Your task to perform on an android device: Search for Mexican restaurants on Maps Image 0: 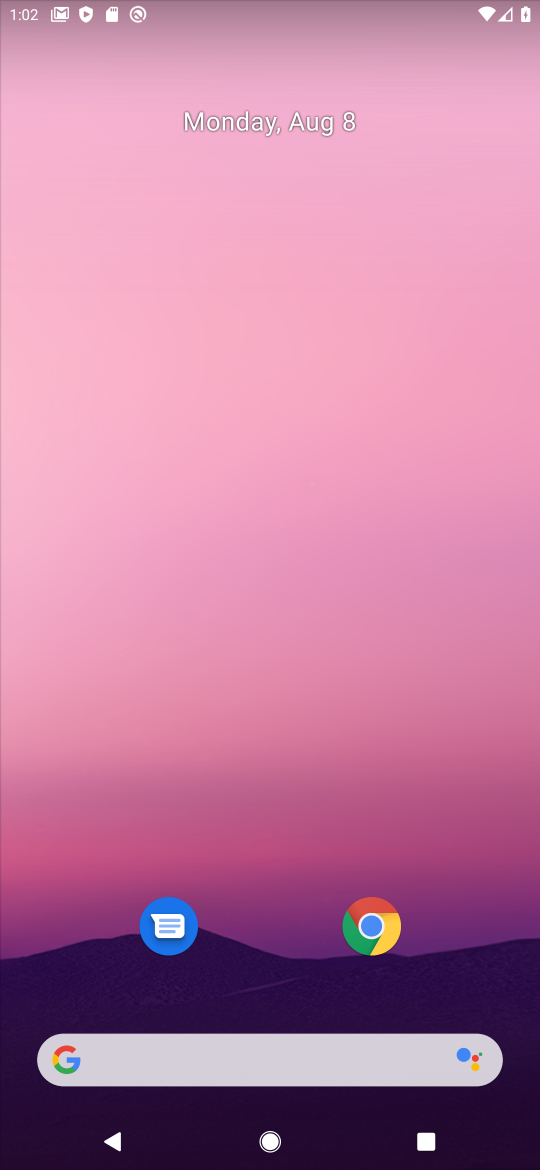
Step 0: drag from (286, 596) to (247, 278)
Your task to perform on an android device: Search for Mexican restaurants on Maps Image 1: 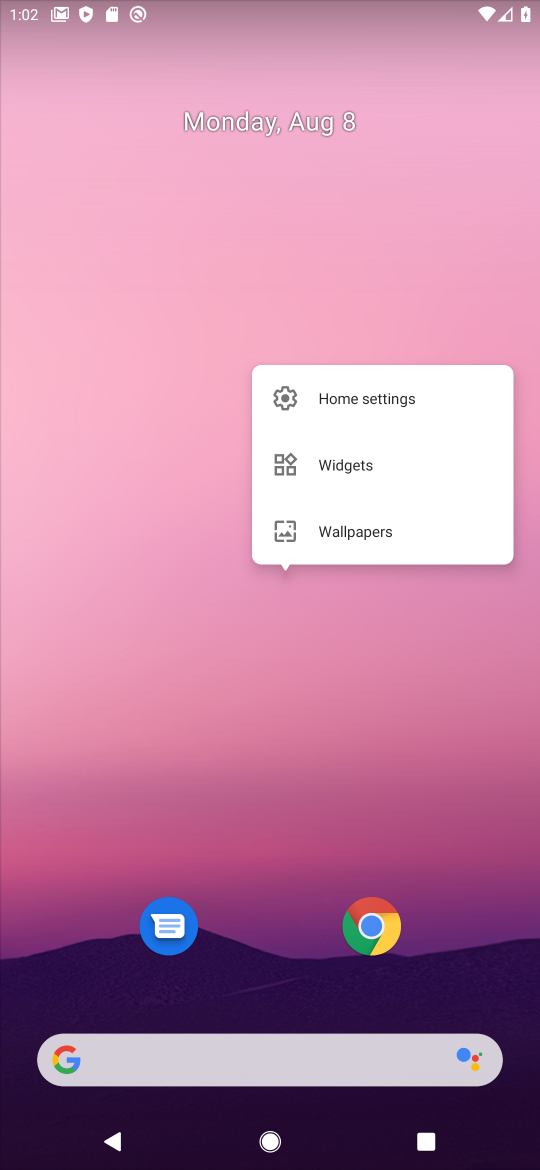
Step 1: click (229, 929)
Your task to perform on an android device: Search for Mexican restaurants on Maps Image 2: 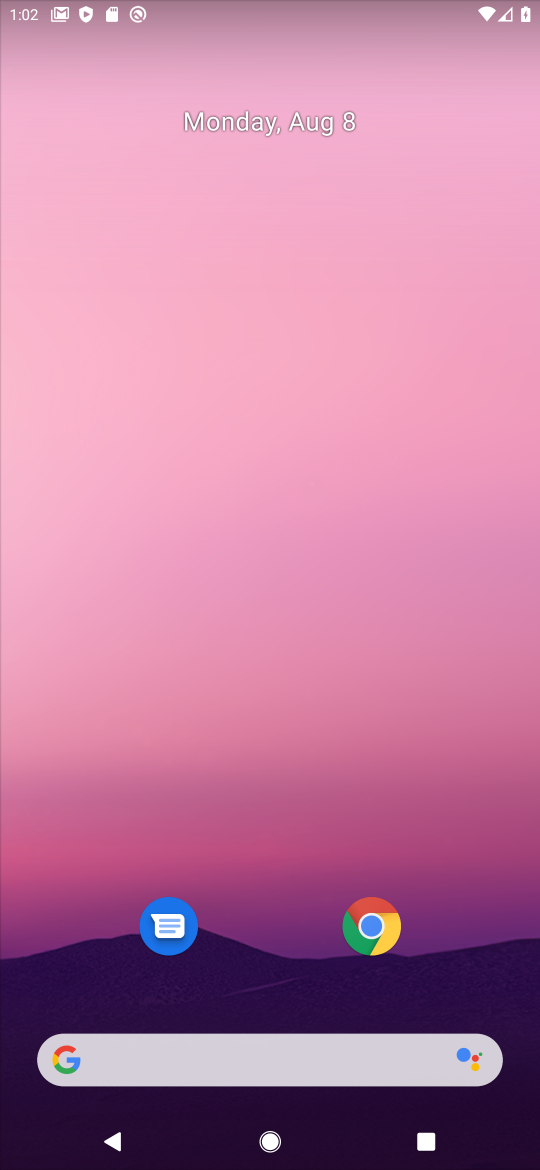
Step 2: drag from (305, 873) to (340, 44)
Your task to perform on an android device: Search for Mexican restaurants on Maps Image 3: 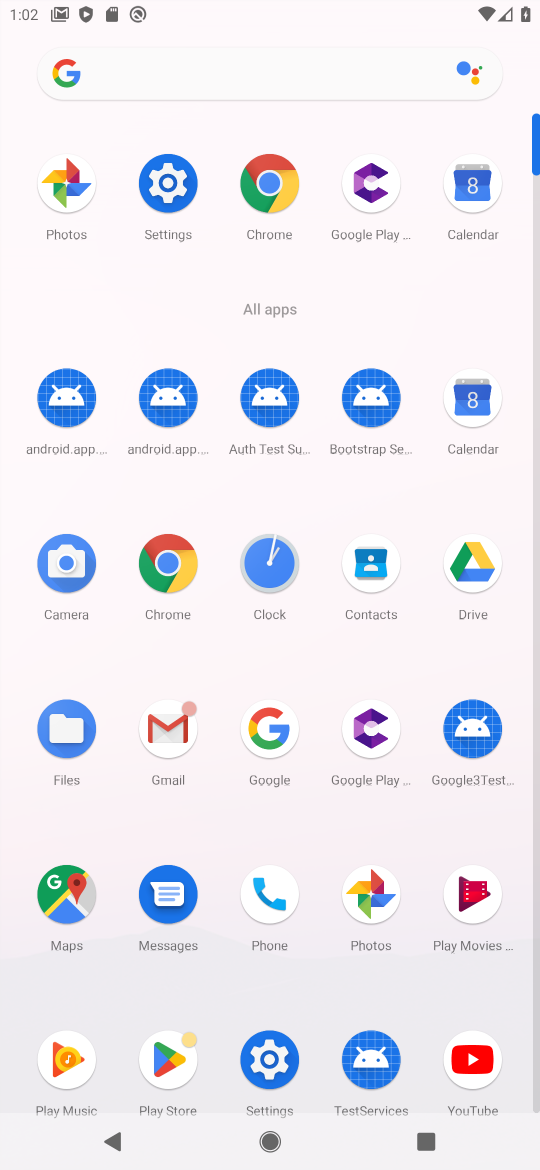
Step 3: click (55, 884)
Your task to perform on an android device: Search for Mexican restaurants on Maps Image 4: 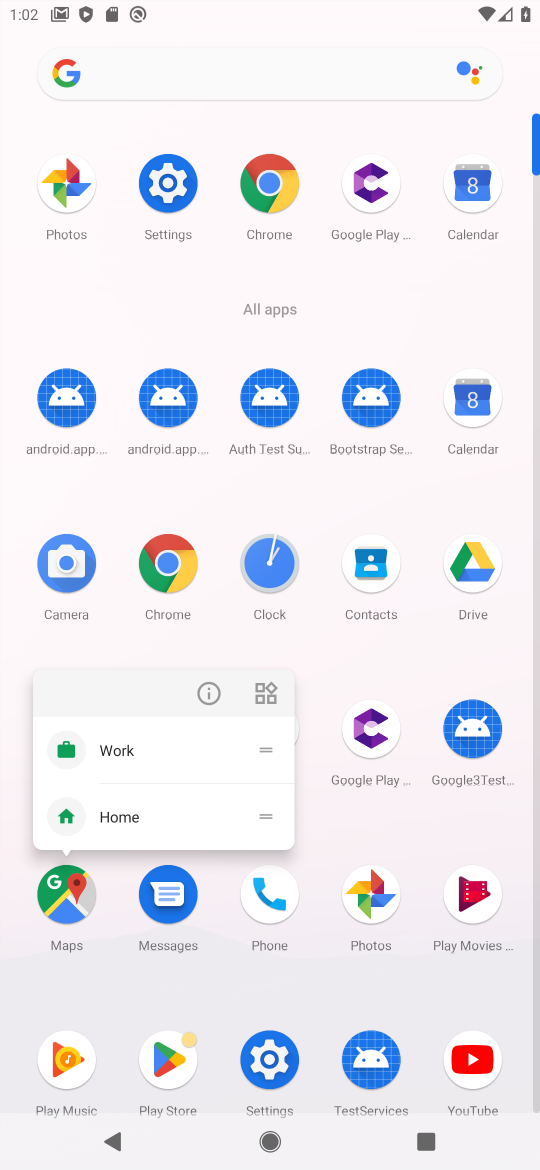
Step 4: click (64, 886)
Your task to perform on an android device: Search for Mexican restaurants on Maps Image 5: 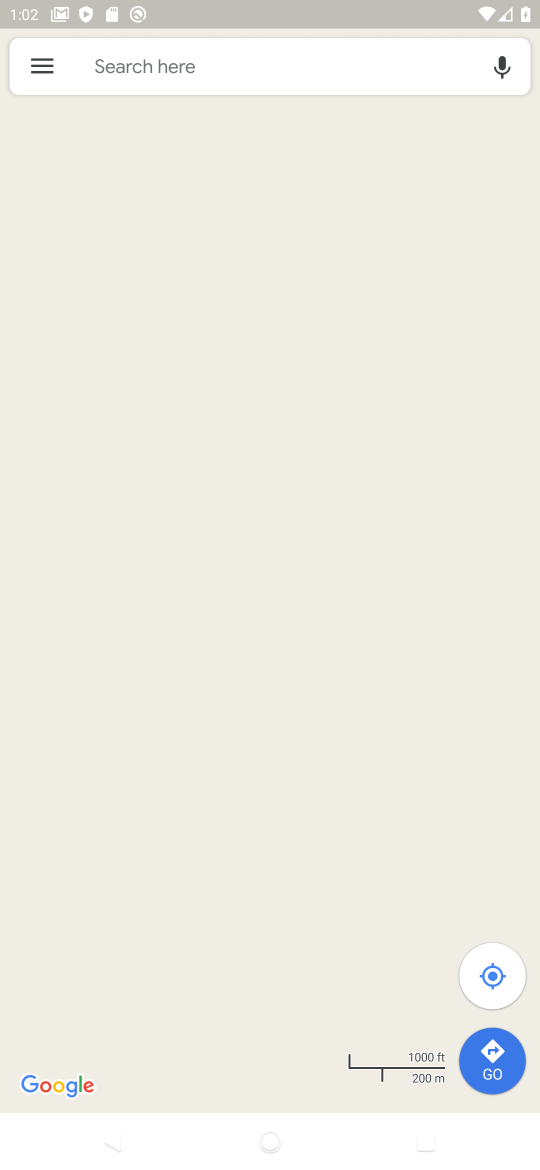
Step 5: click (261, 60)
Your task to perform on an android device: Search for Mexican restaurants on Maps Image 6: 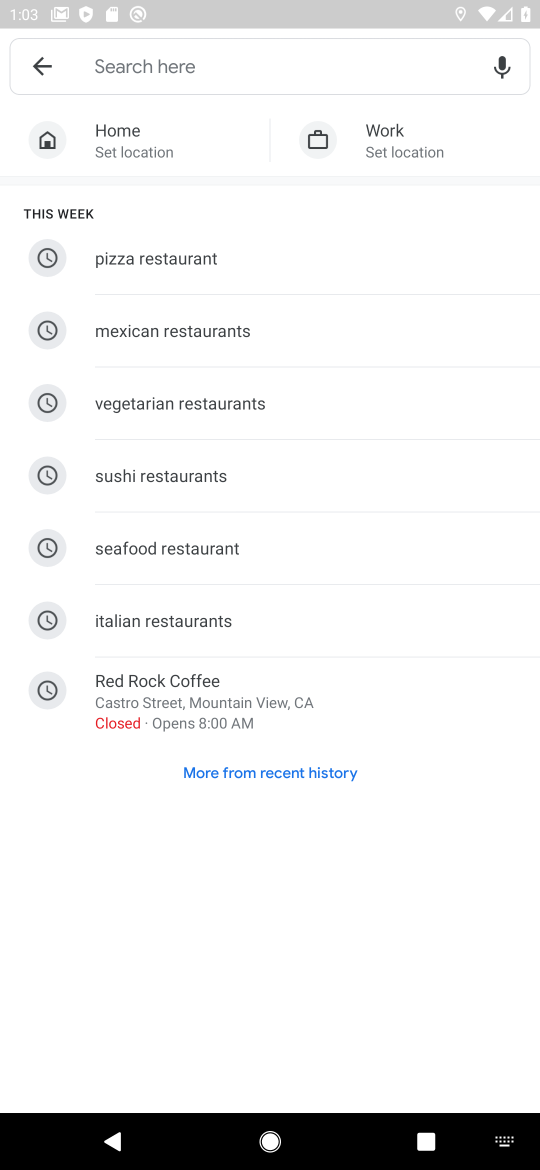
Step 6: click (218, 335)
Your task to perform on an android device: Search for Mexican restaurants on Maps Image 7: 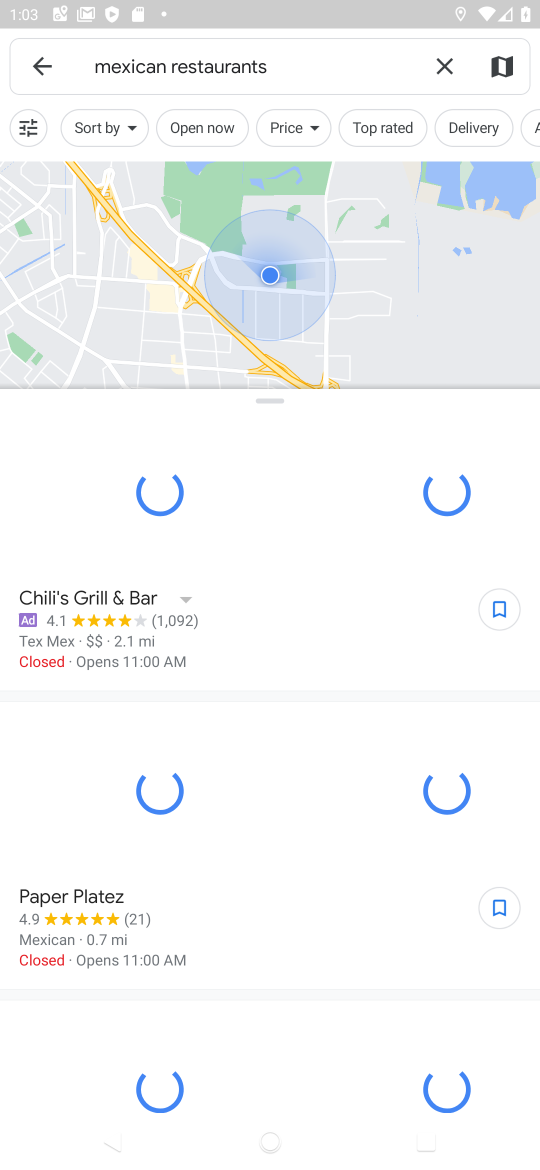
Step 7: task complete